Your task to perform on an android device: toggle location history Image 0: 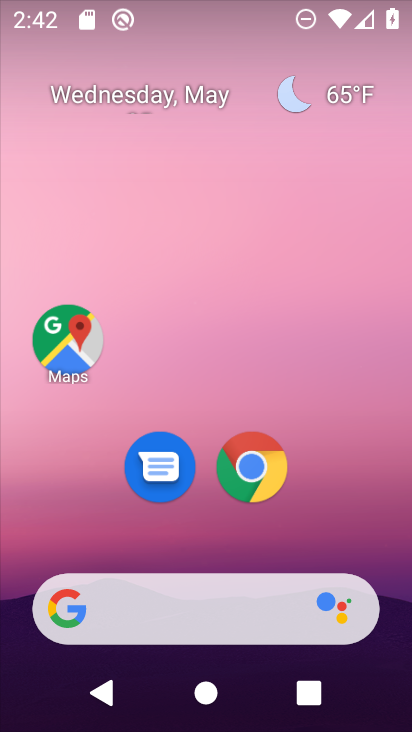
Step 0: click (65, 340)
Your task to perform on an android device: toggle location history Image 1: 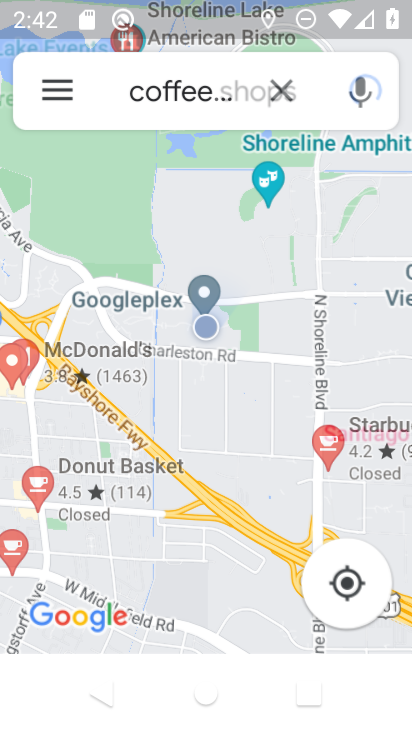
Step 1: click (58, 76)
Your task to perform on an android device: toggle location history Image 2: 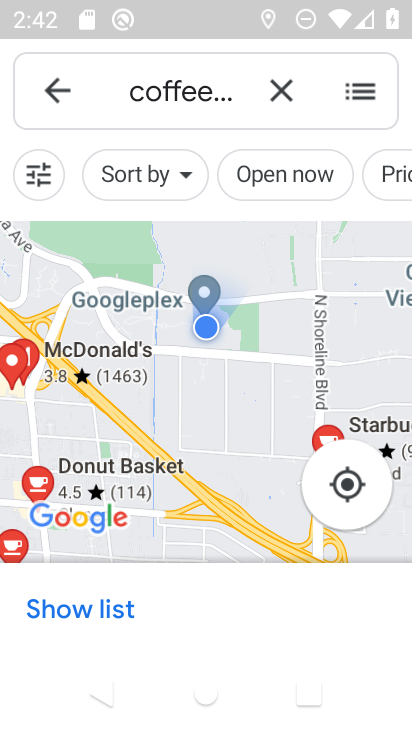
Step 2: click (267, 92)
Your task to perform on an android device: toggle location history Image 3: 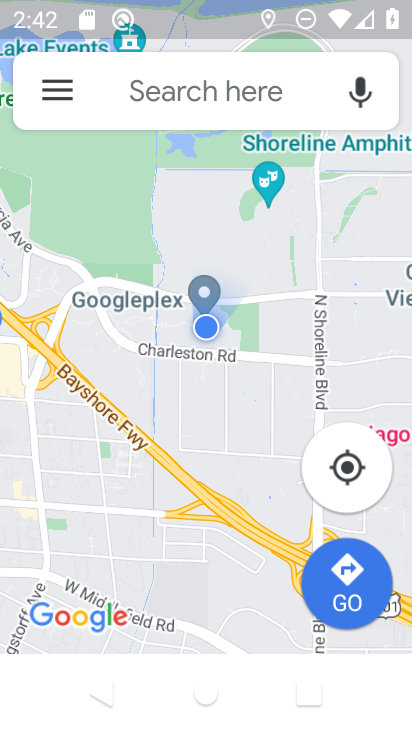
Step 3: click (45, 76)
Your task to perform on an android device: toggle location history Image 4: 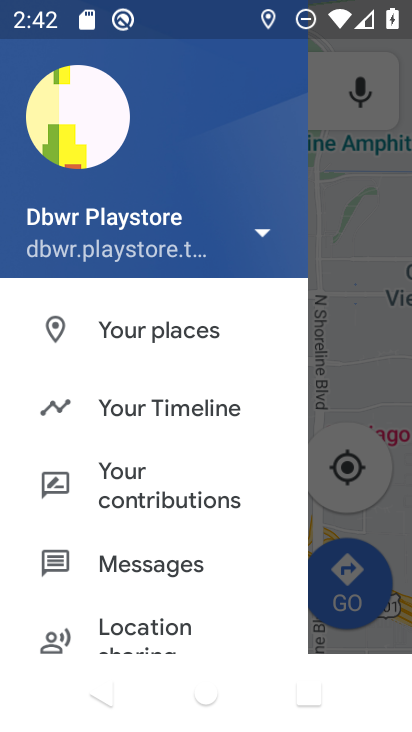
Step 4: click (153, 406)
Your task to perform on an android device: toggle location history Image 5: 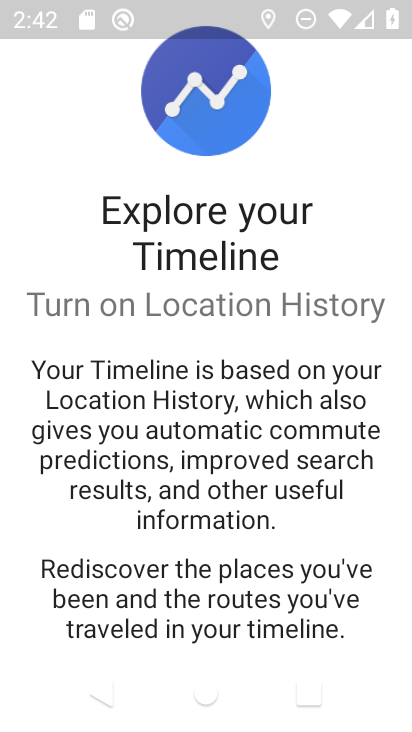
Step 5: drag from (253, 574) to (265, 247)
Your task to perform on an android device: toggle location history Image 6: 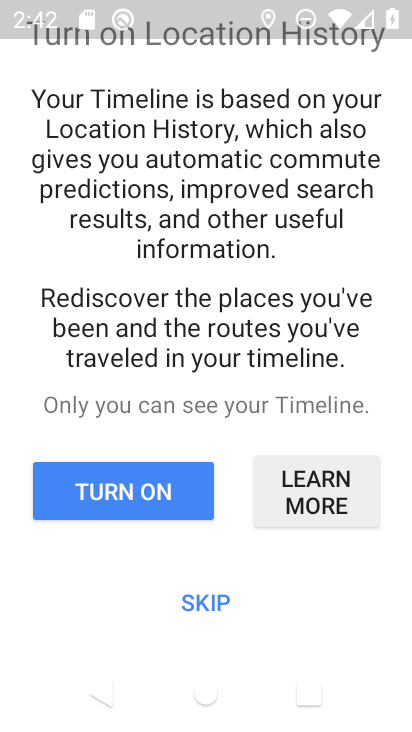
Step 6: click (201, 598)
Your task to perform on an android device: toggle location history Image 7: 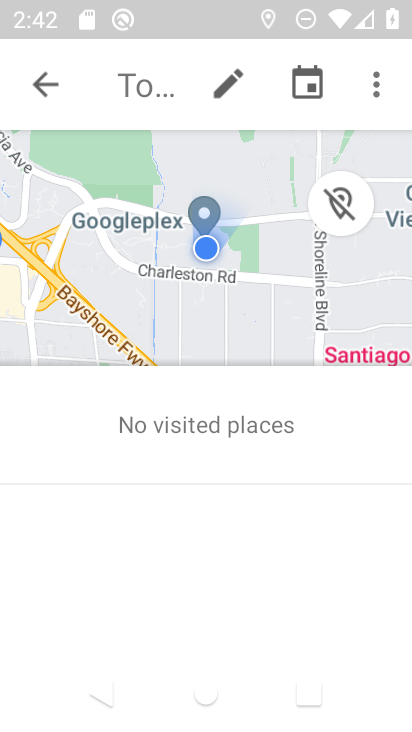
Step 7: click (356, 60)
Your task to perform on an android device: toggle location history Image 8: 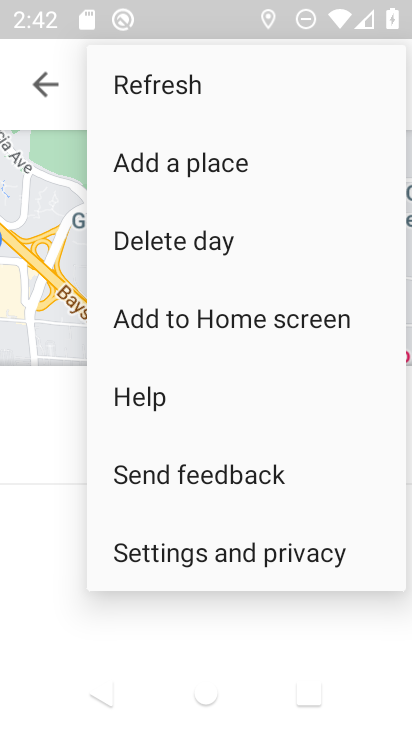
Step 8: click (240, 555)
Your task to perform on an android device: toggle location history Image 9: 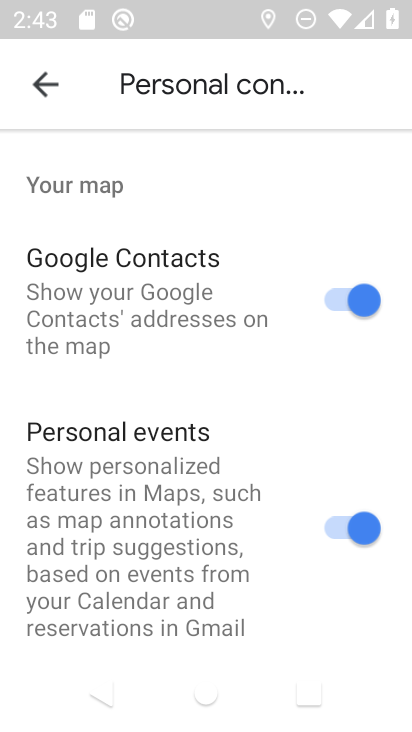
Step 9: drag from (189, 584) to (221, 247)
Your task to perform on an android device: toggle location history Image 10: 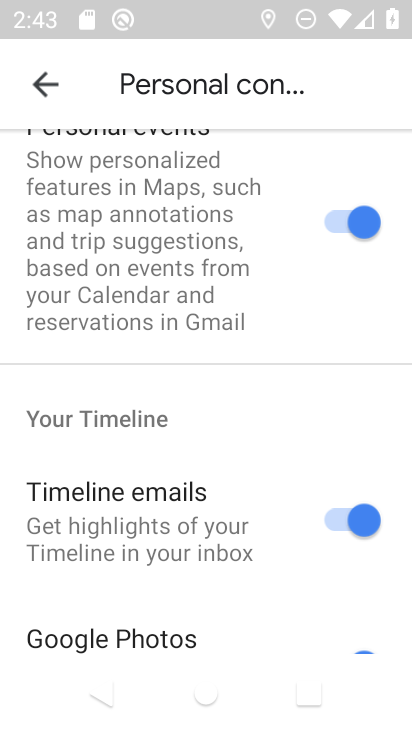
Step 10: drag from (197, 545) to (191, 286)
Your task to perform on an android device: toggle location history Image 11: 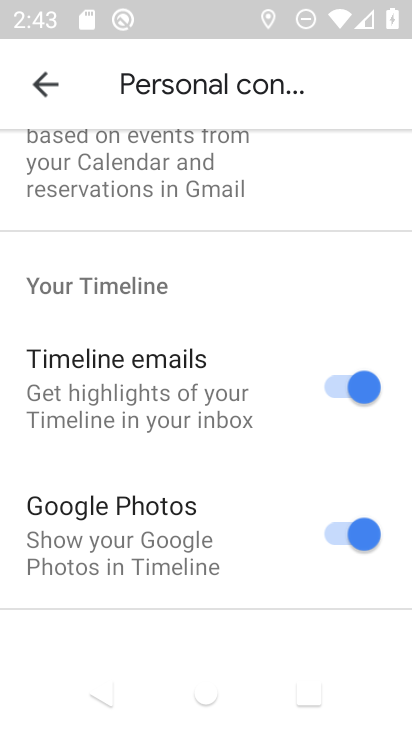
Step 11: drag from (182, 606) to (181, 302)
Your task to perform on an android device: toggle location history Image 12: 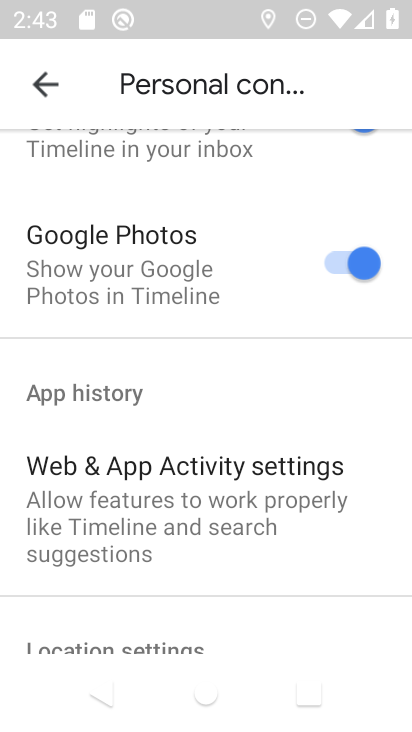
Step 12: drag from (175, 534) to (193, 252)
Your task to perform on an android device: toggle location history Image 13: 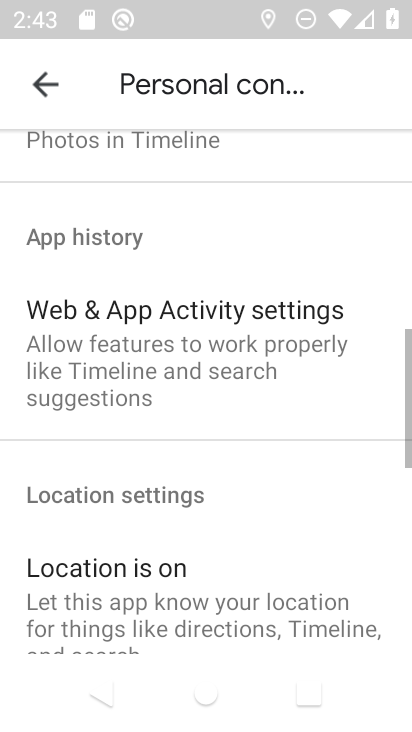
Step 13: drag from (188, 528) to (212, 321)
Your task to perform on an android device: toggle location history Image 14: 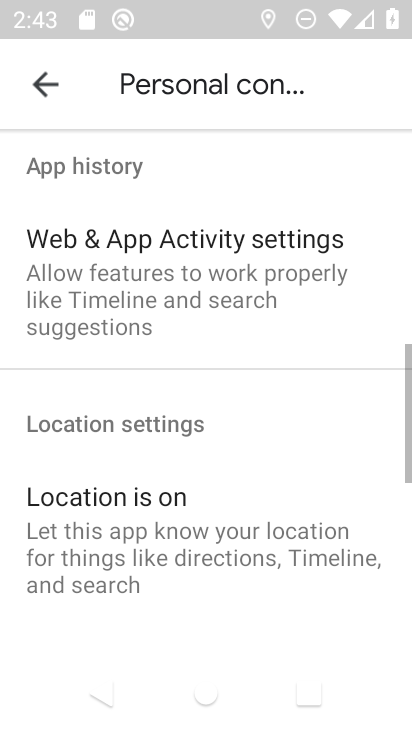
Step 14: drag from (233, 449) to (238, 404)
Your task to perform on an android device: toggle location history Image 15: 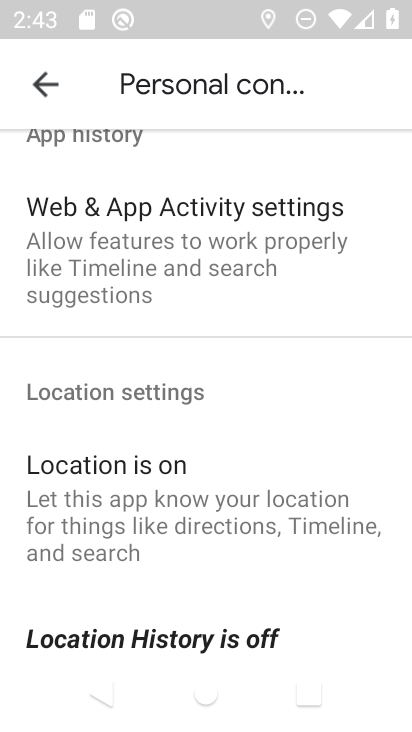
Step 15: drag from (184, 541) to (201, 293)
Your task to perform on an android device: toggle location history Image 16: 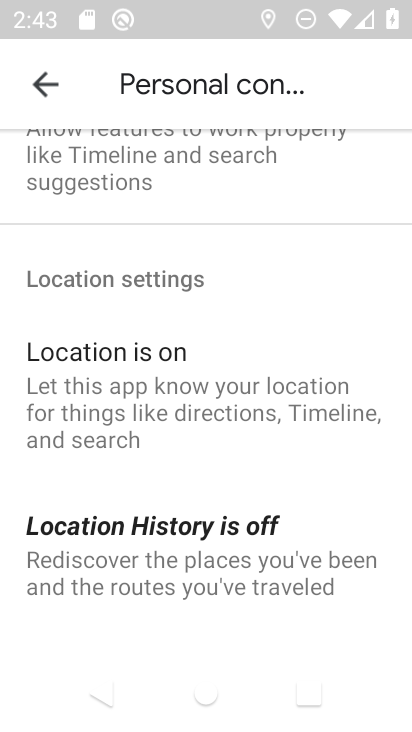
Step 16: click (191, 532)
Your task to perform on an android device: toggle location history Image 17: 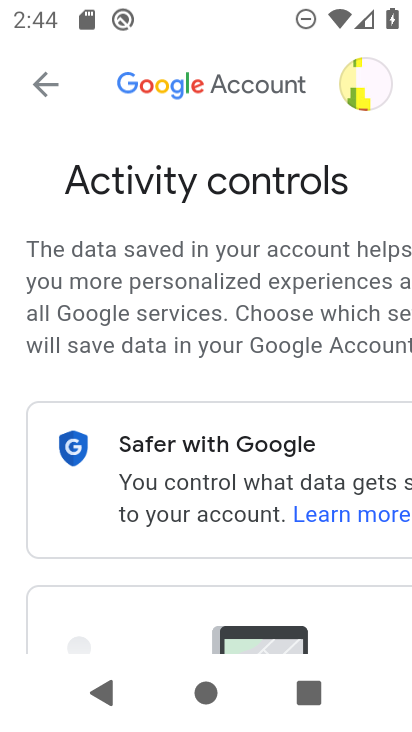
Step 17: drag from (270, 579) to (287, 193)
Your task to perform on an android device: toggle location history Image 18: 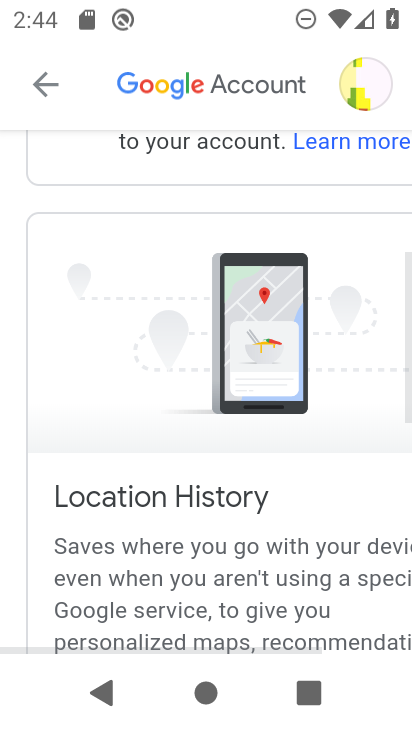
Step 18: drag from (305, 586) to (305, 218)
Your task to perform on an android device: toggle location history Image 19: 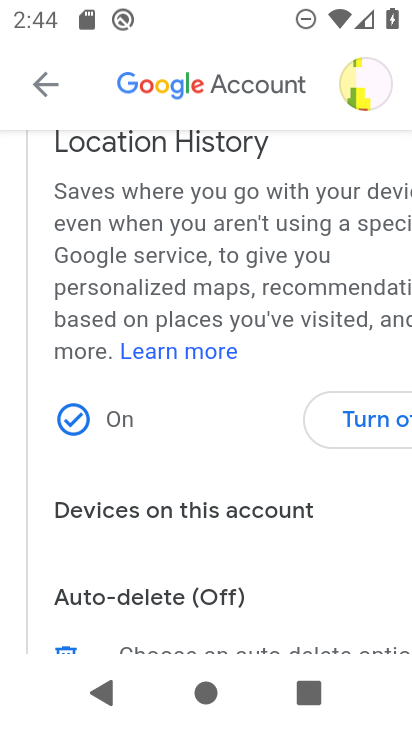
Step 19: click (351, 419)
Your task to perform on an android device: toggle location history Image 20: 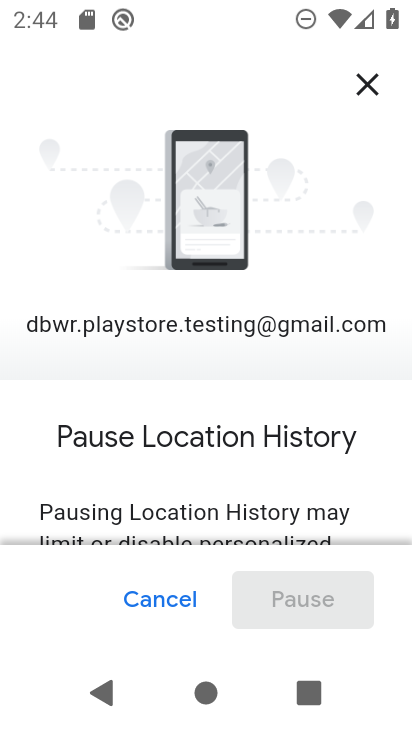
Step 20: task complete